Your task to perform on an android device: open app "Walmart Shopping & Grocery" (install if not already installed) Image 0: 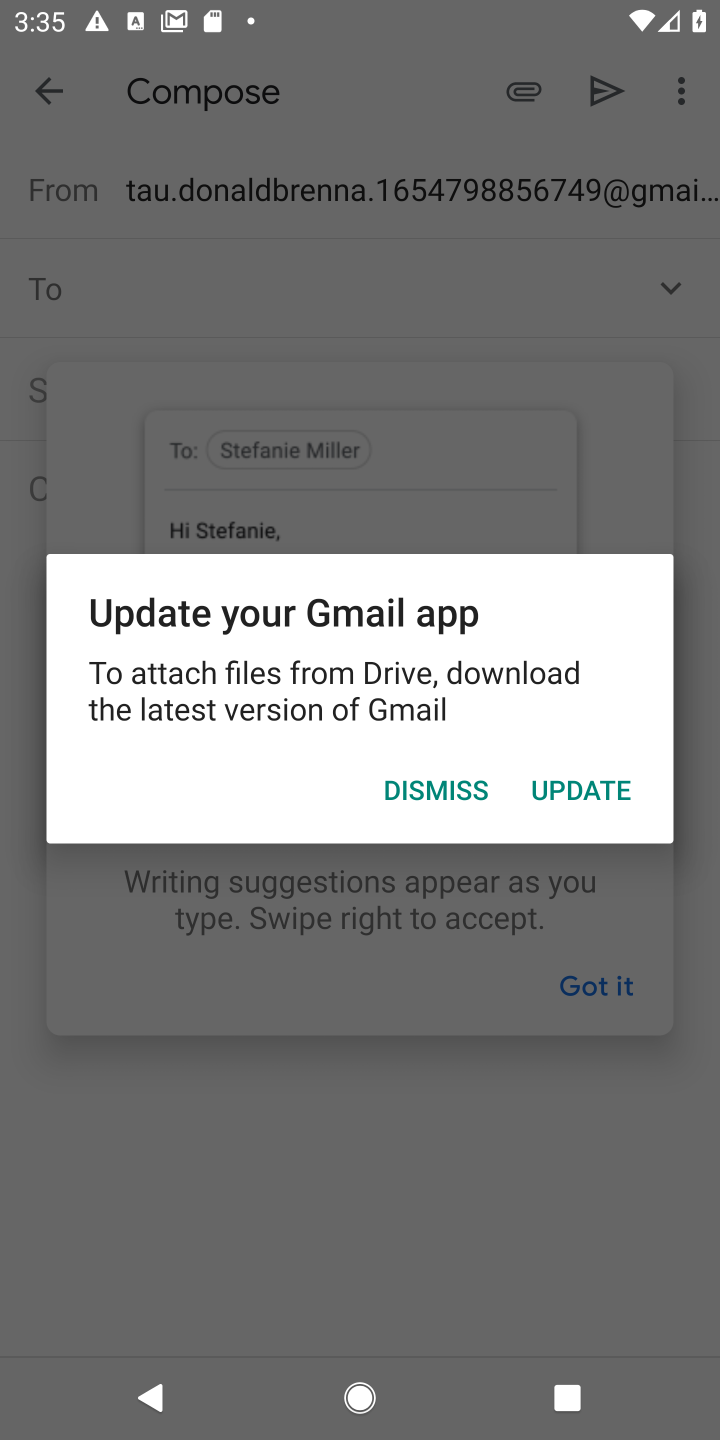
Step 0: press home button
Your task to perform on an android device: open app "Walmart Shopping & Grocery" (install if not already installed) Image 1: 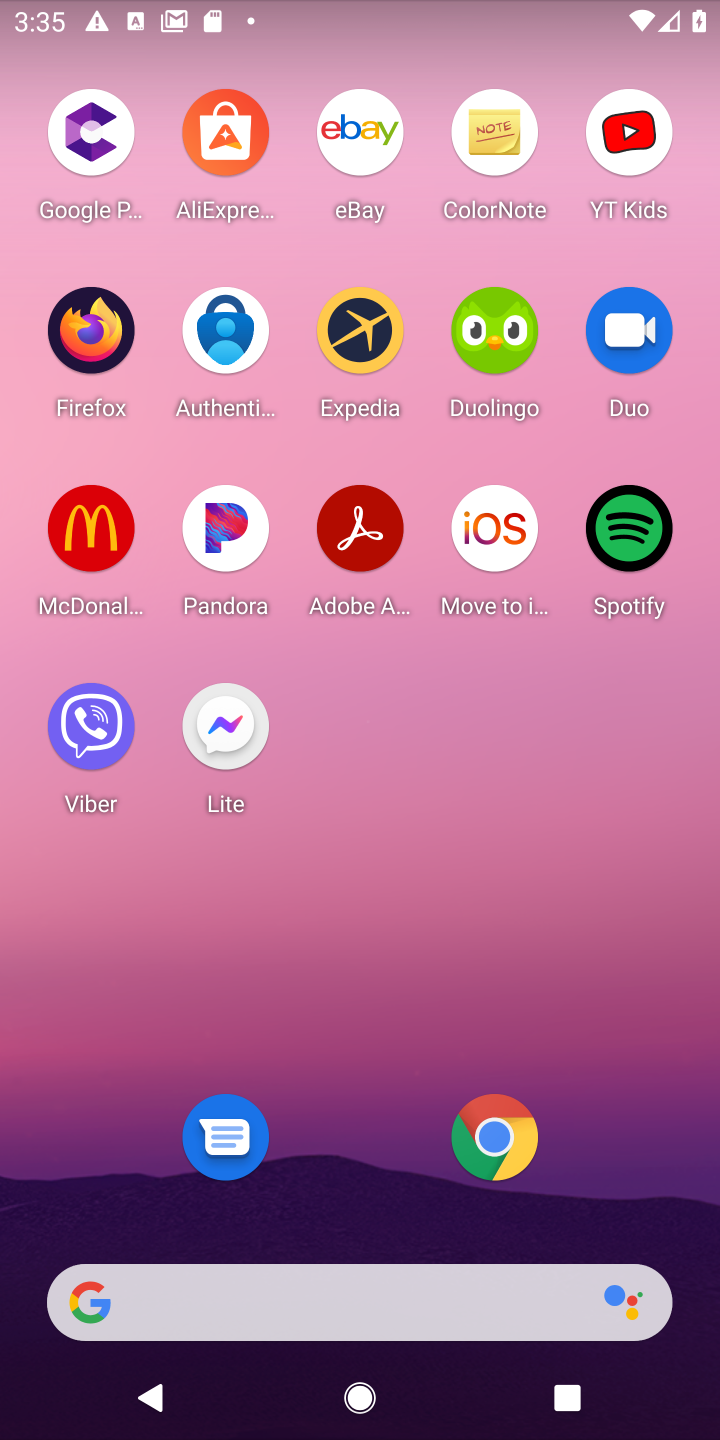
Step 1: drag from (286, 481) to (285, 99)
Your task to perform on an android device: open app "Walmart Shopping & Grocery" (install if not already installed) Image 2: 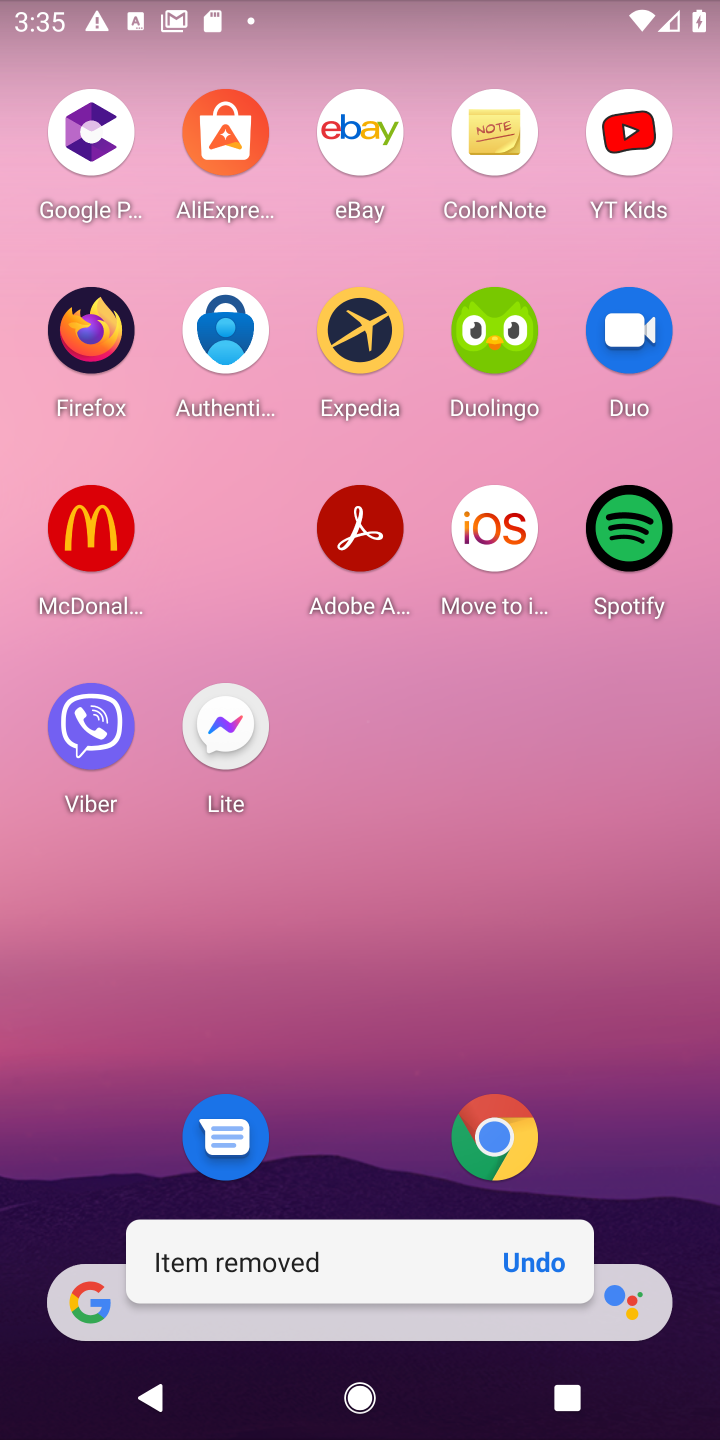
Step 2: drag from (318, 1122) to (305, 201)
Your task to perform on an android device: open app "Walmart Shopping & Grocery" (install if not already installed) Image 3: 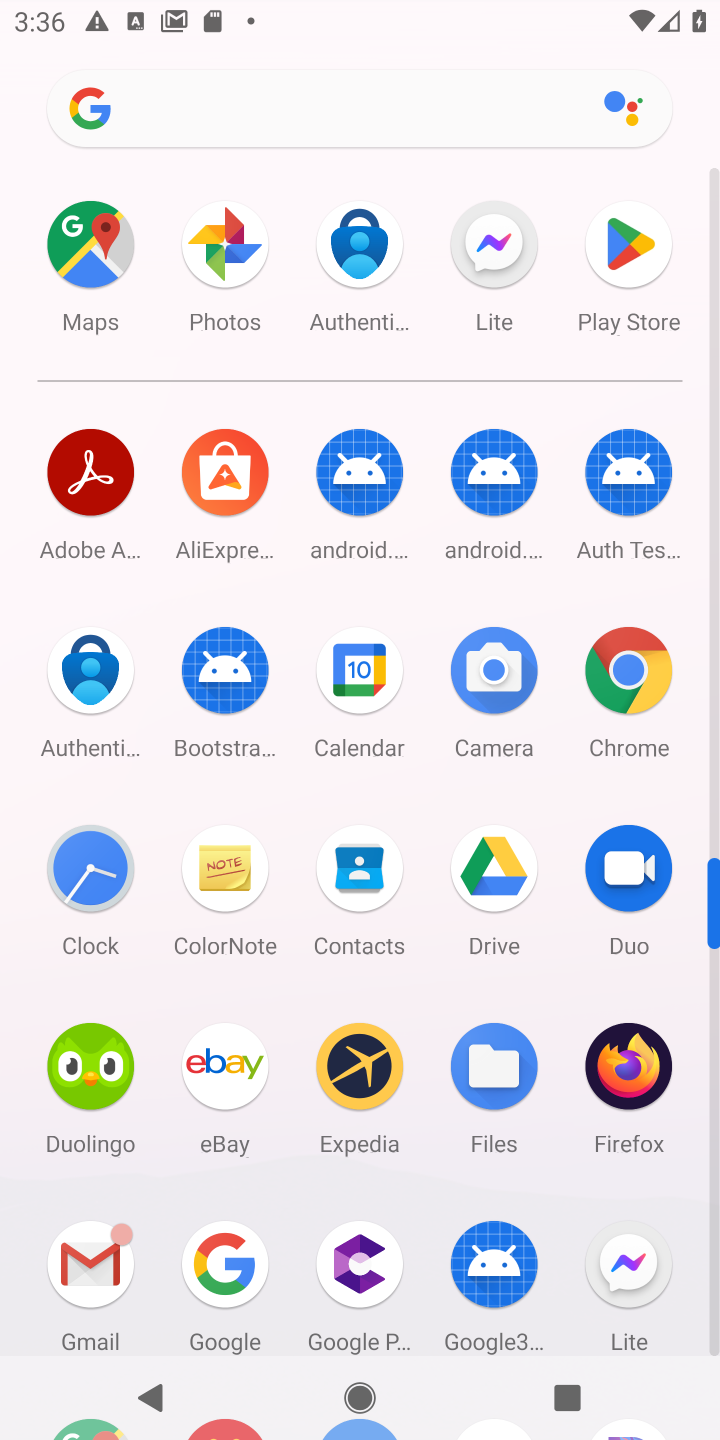
Step 3: click (643, 266)
Your task to perform on an android device: open app "Walmart Shopping & Grocery" (install if not already installed) Image 4: 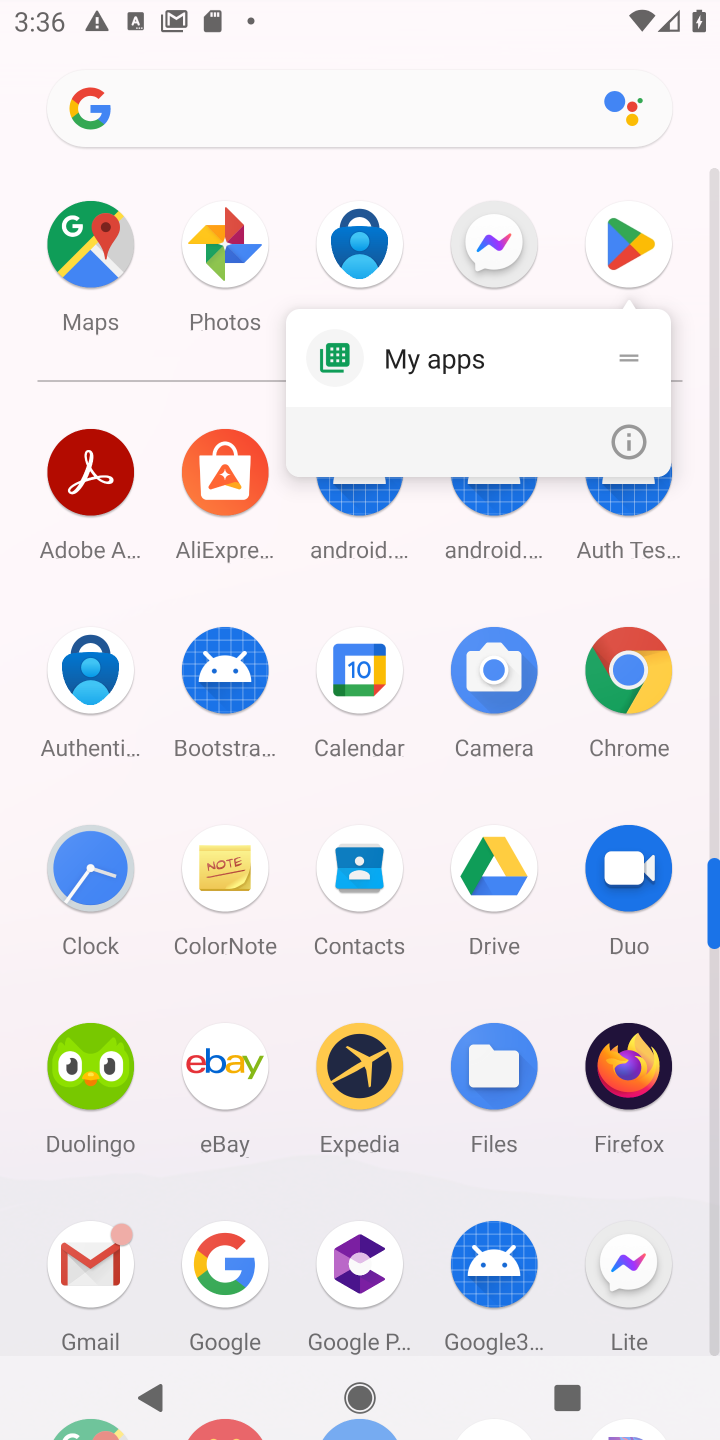
Step 4: click (635, 227)
Your task to perform on an android device: open app "Walmart Shopping & Grocery" (install if not already installed) Image 5: 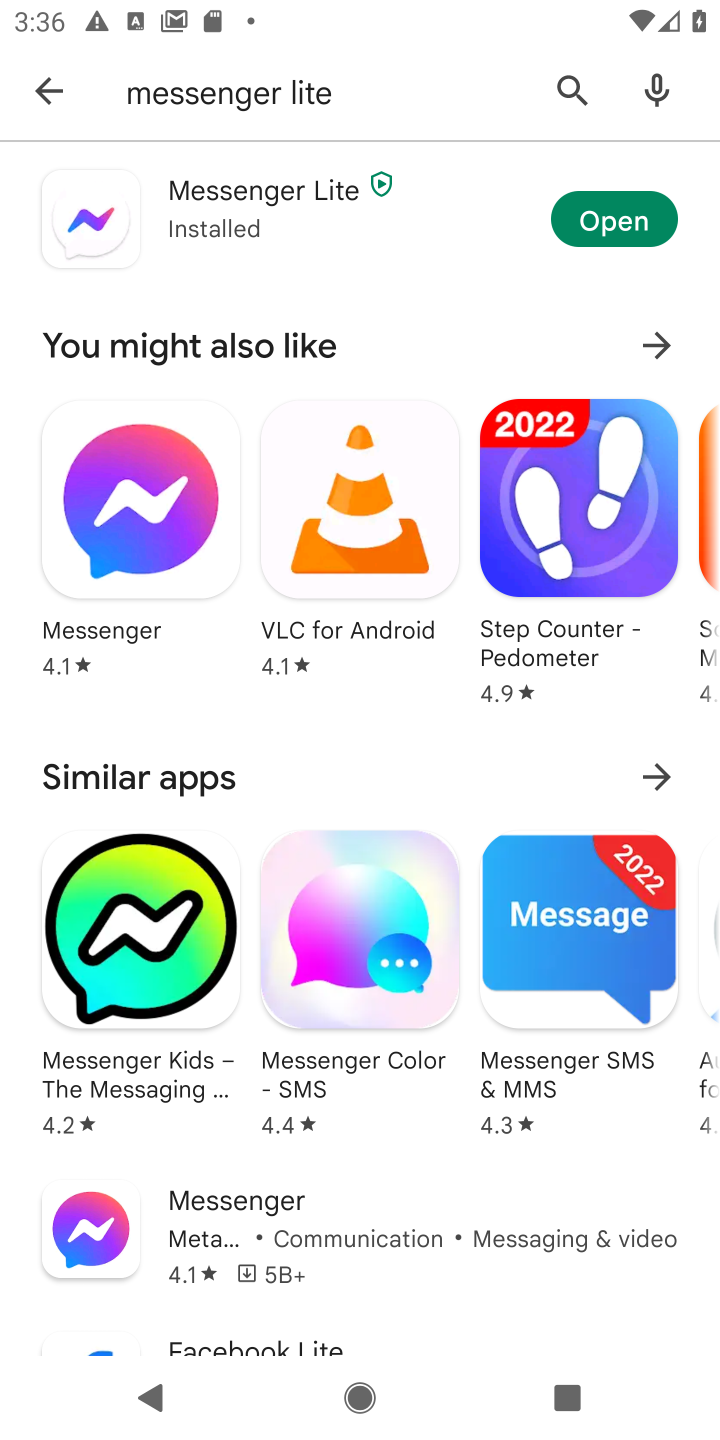
Step 5: click (263, 100)
Your task to perform on an android device: open app "Walmart Shopping & Grocery" (install if not already installed) Image 6: 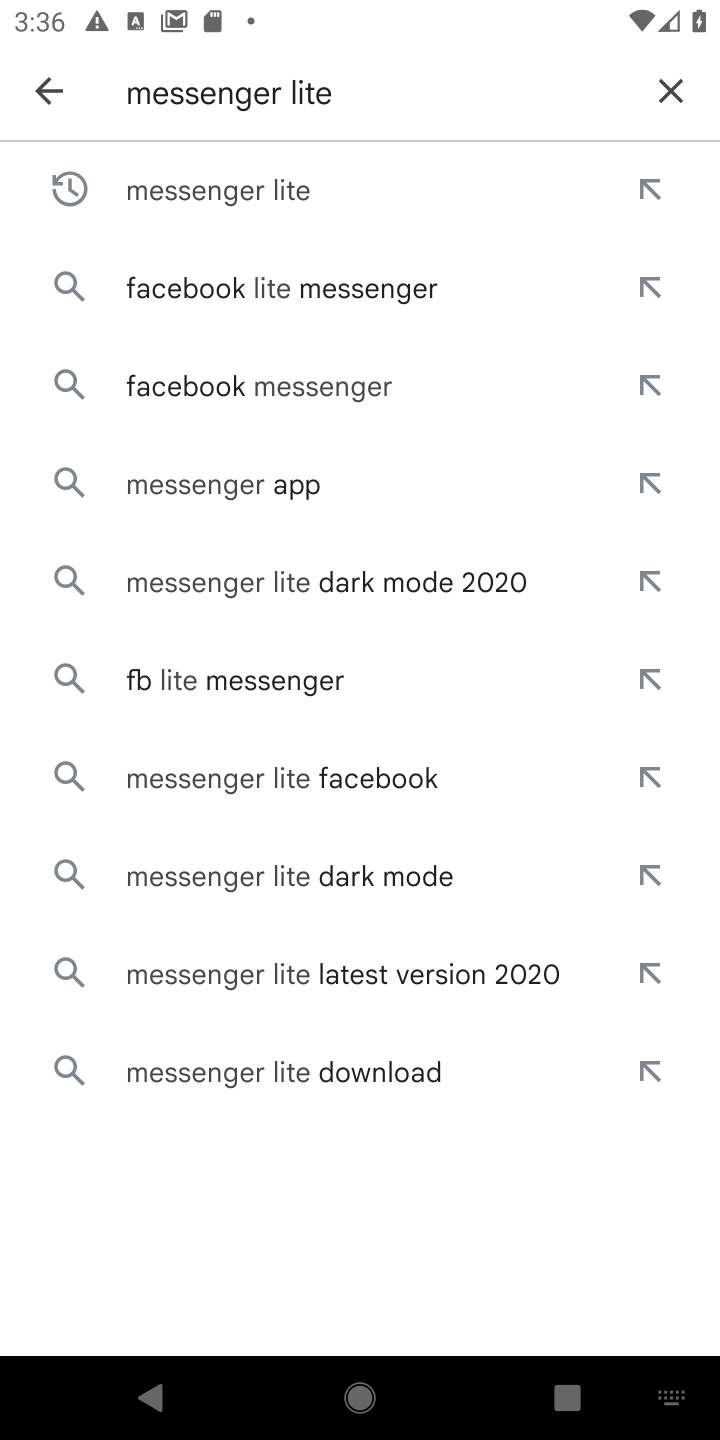
Step 6: click (668, 72)
Your task to perform on an android device: open app "Walmart Shopping & Grocery" (install if not already installed) Image 7: 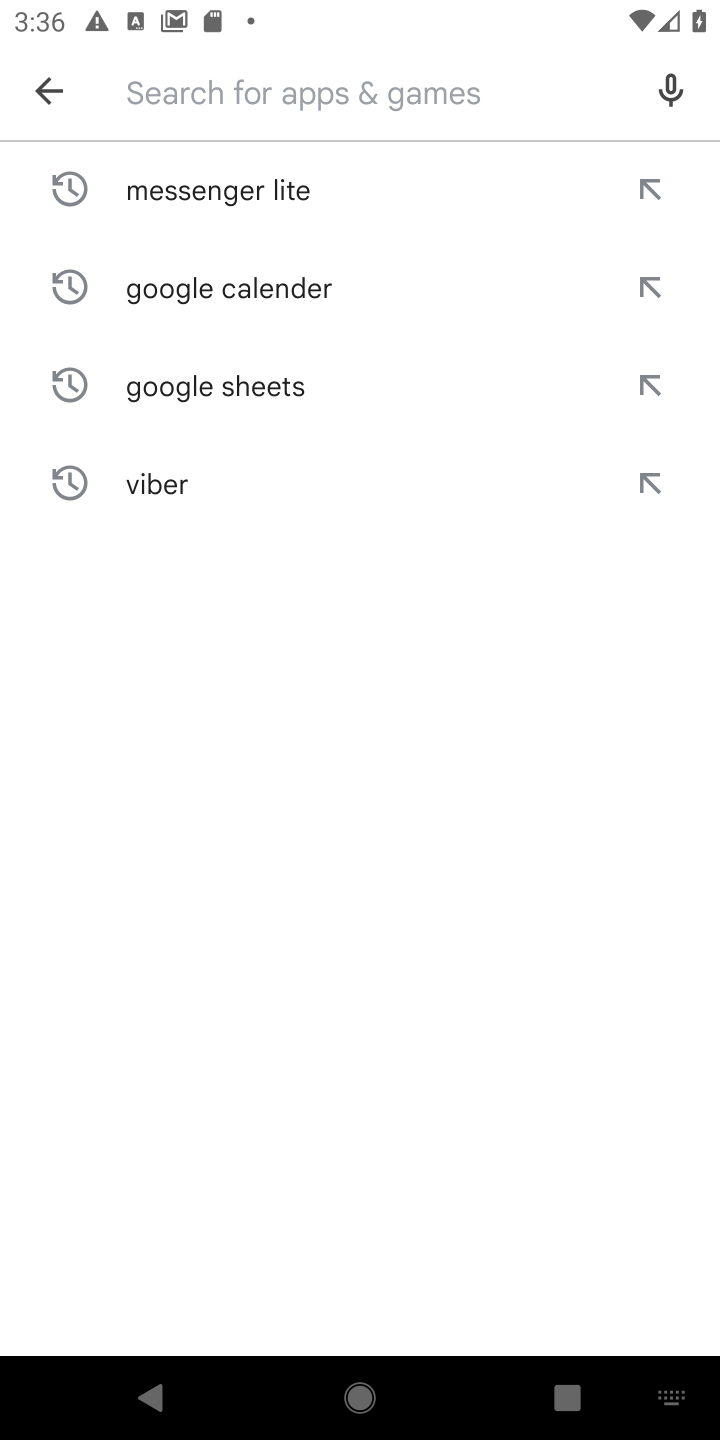
Step 7: type "walmart shopping "
Your task to perform on an android device: open app "Walmart Shopping & Grocery" (install if not already installed) Image 8: 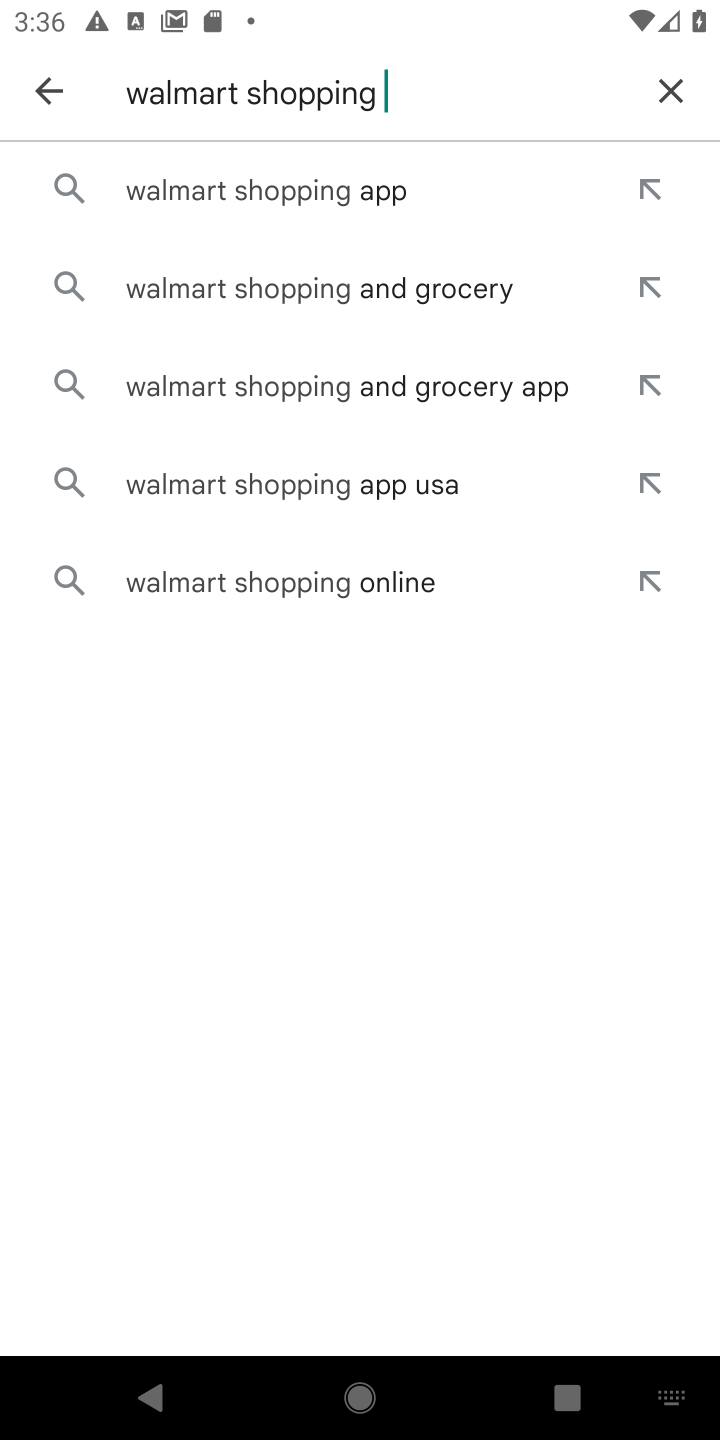
Step 8: click (281, 186)
Your task to perform on an android device: open app "Walmart Shopping & Grocery" (install if not already installed) Image 9: 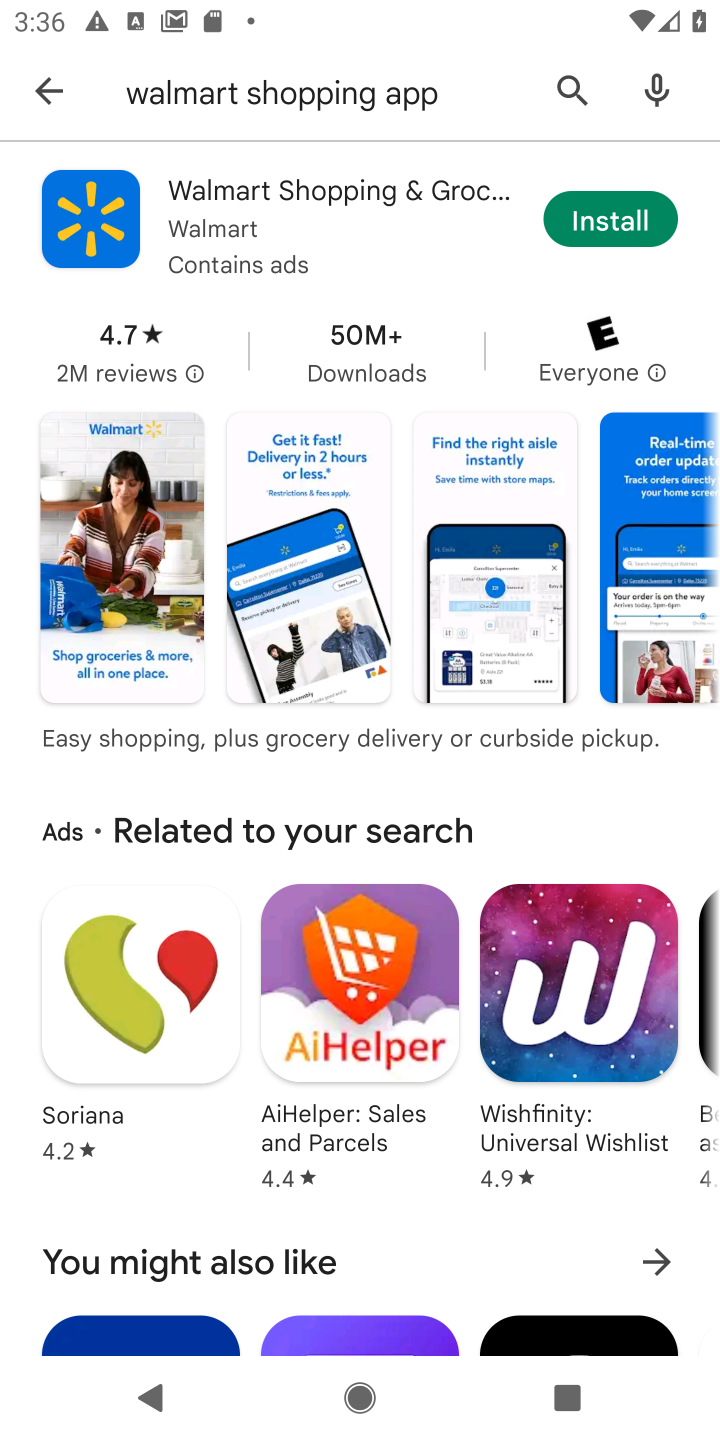
Step 9: click (634, 222)
Your task to perform on an android device: open app "Walmart Shopping & Grocery" (install if not already installed) Image 10: 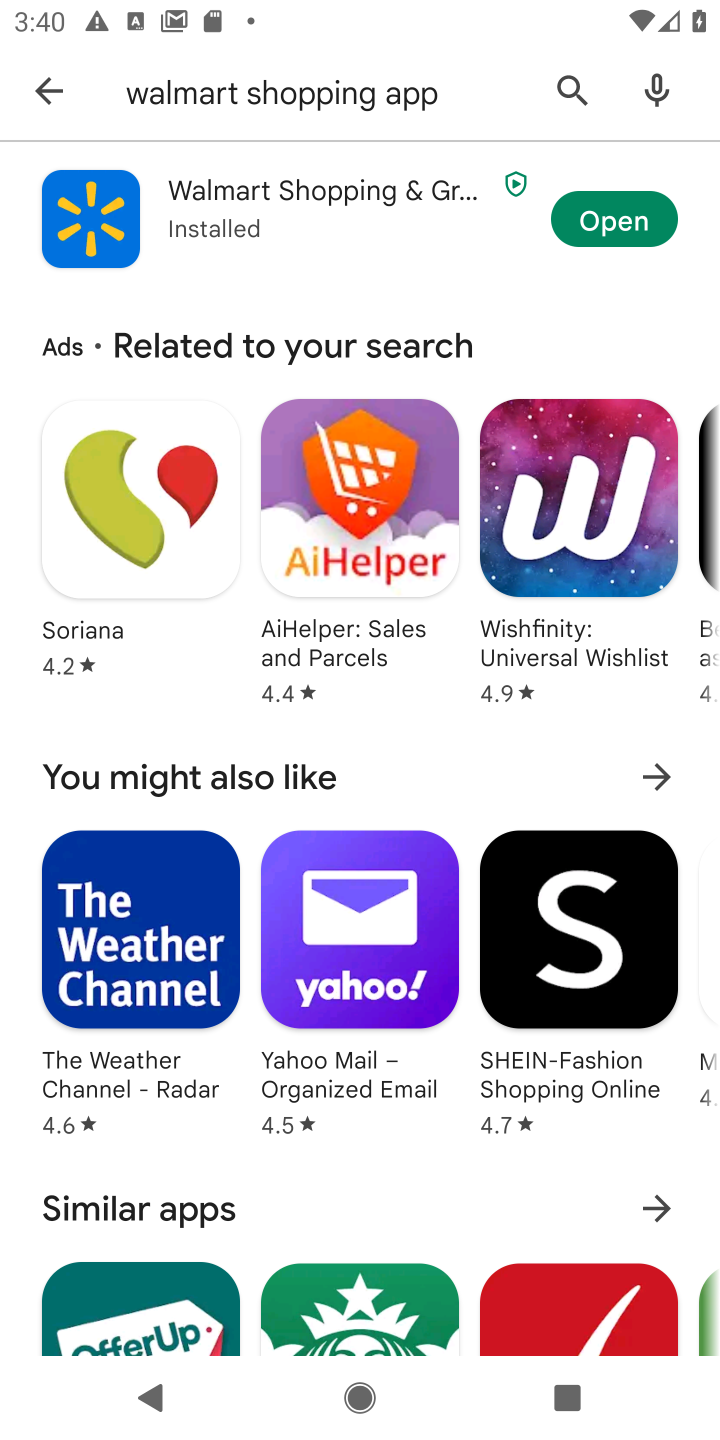
Step 10: click (630, 211)
Your task to perform on an android device: open app "Walmart Shopping & Grocery" (install if not already installed) Image 11: 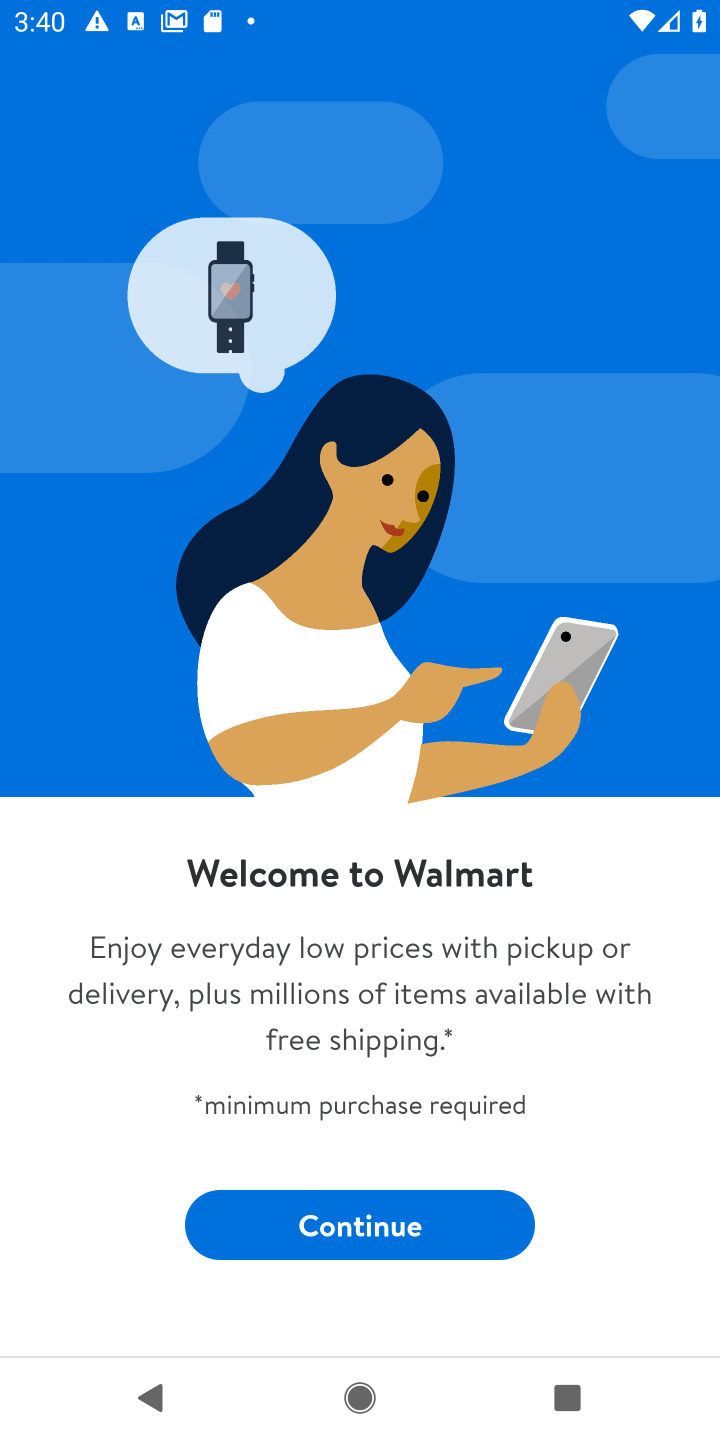
Step 11: click (464, 1214)
Your task to perform on an android device: open app "Walmart Shopping & Grocery" (install if not already installed) Image 12: 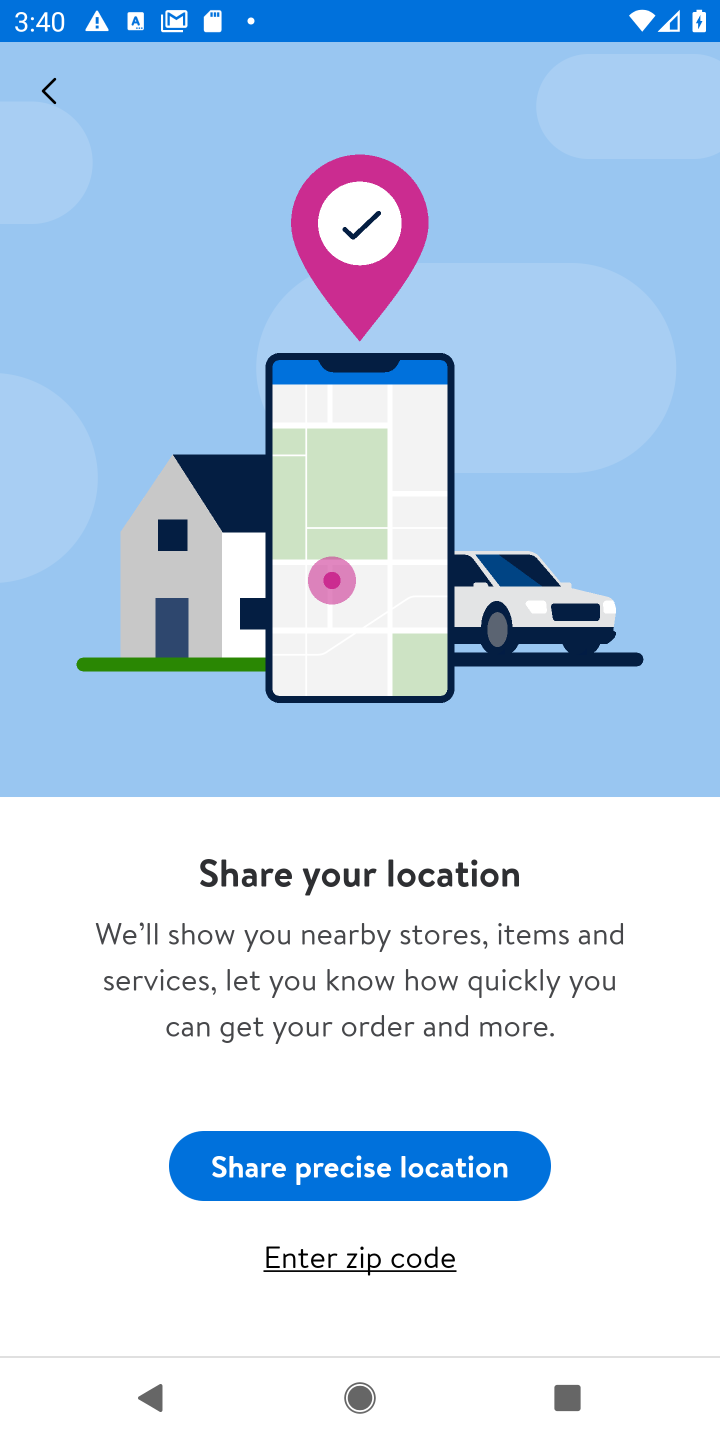
Step 12: click (444, 1177)
Your task to perform on an android device: open app "Walmart Shopping & Grocery" (install if not already installed) Image 13: 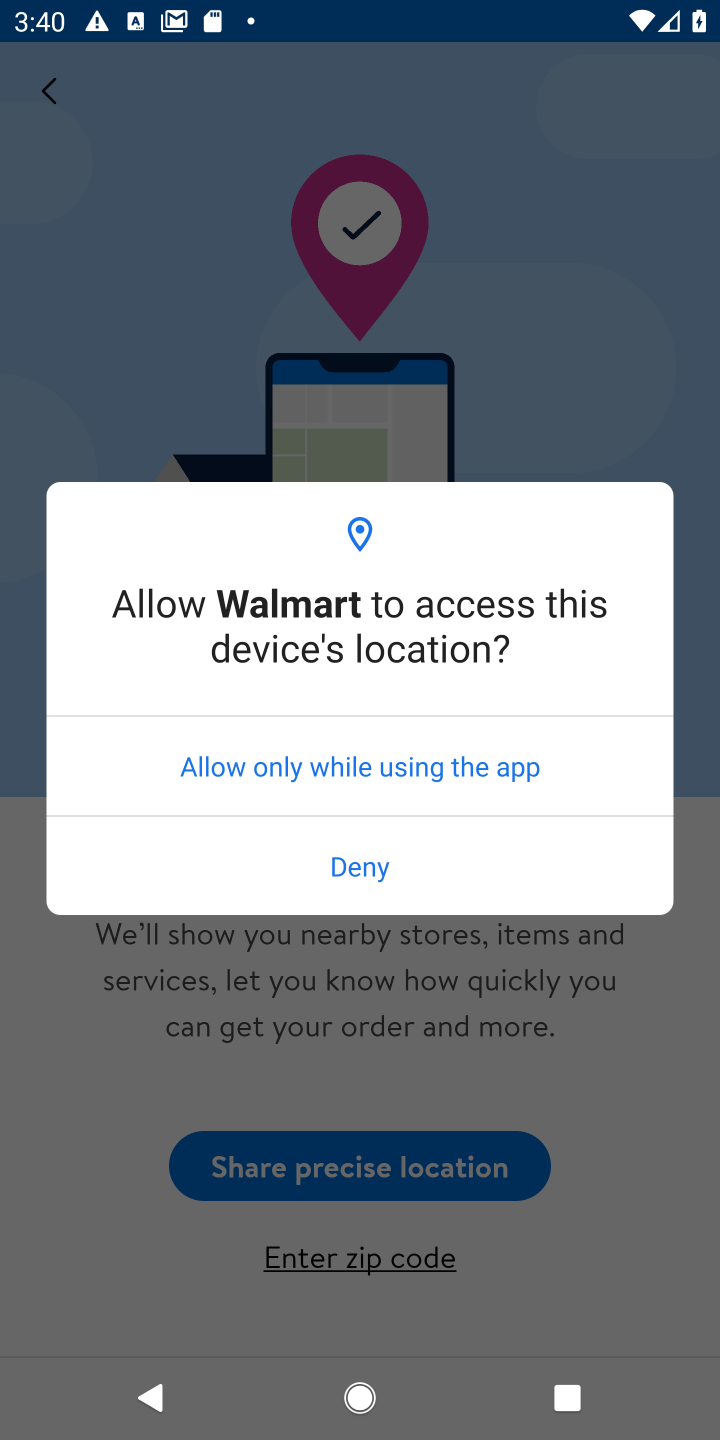
Step 13: click (476, 740)
Your task to perform on an android device: open app "Walmart Shopping & Grocery" (install if not already installed) Image 14: 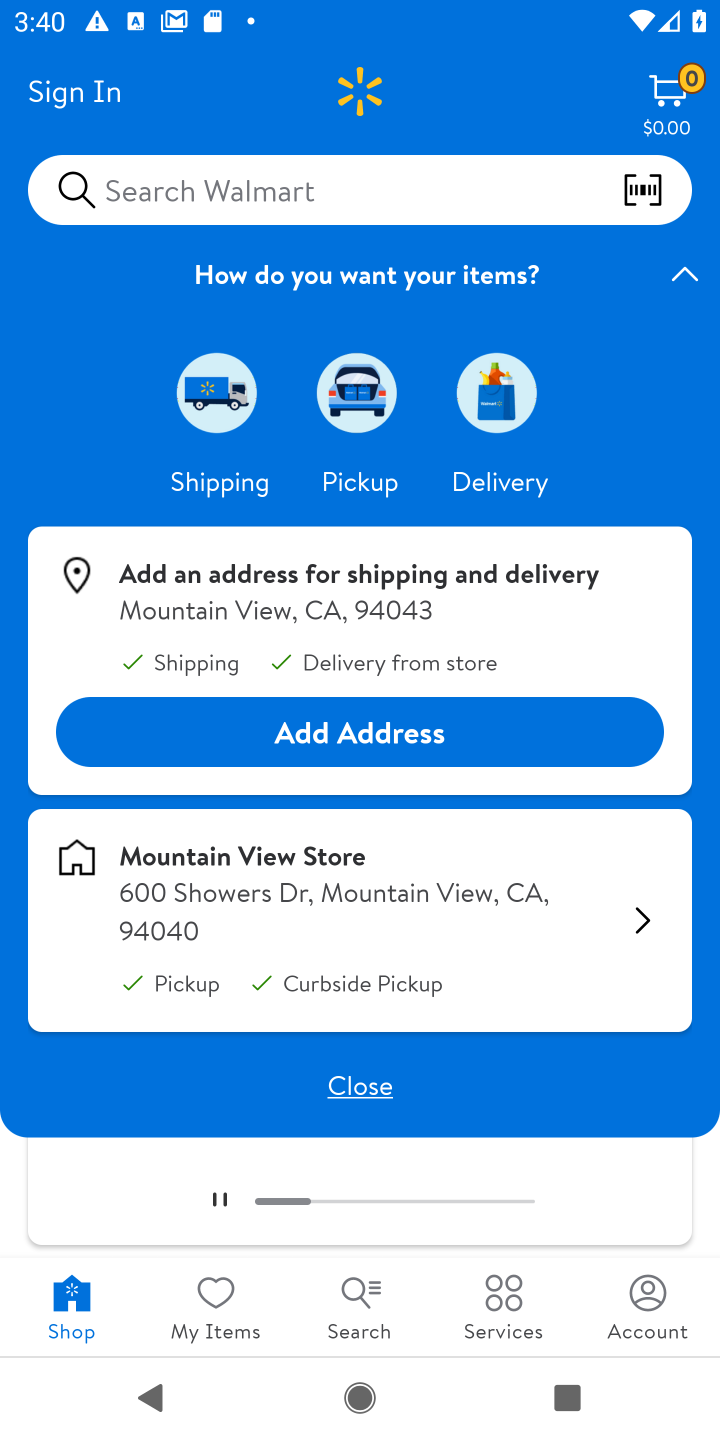
Step 14: task complete